Your task to perform on an android device: check data usage Image 0: 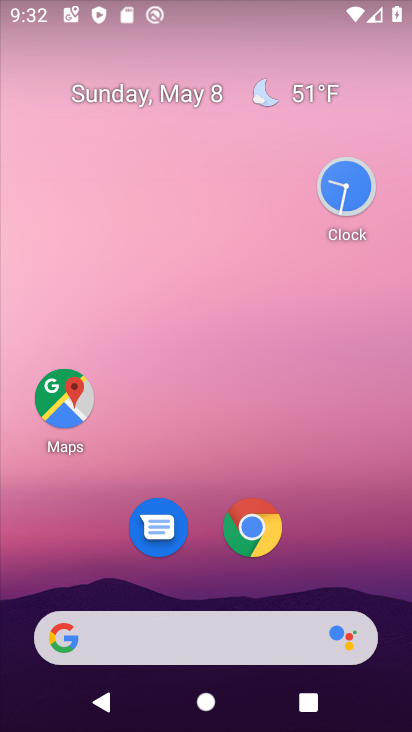
Step 0: drag from (124, 639) to (212, 300)
Your task to perform on an android device: check data usage Image 1: 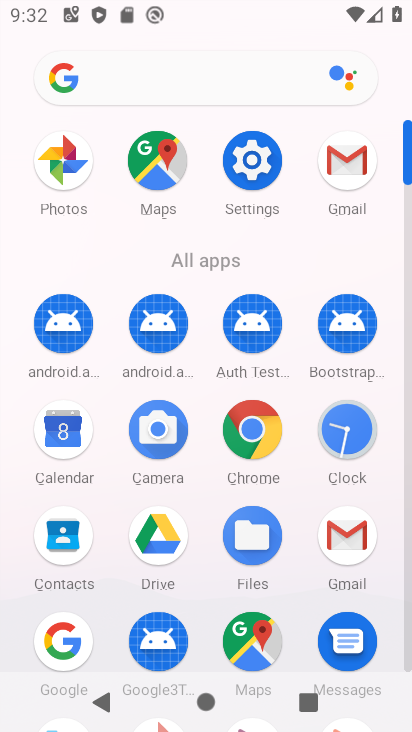
Step 1: drag from (71, 640) to (143, 377)
Your task to perform on an android device: check data usage Image 2: 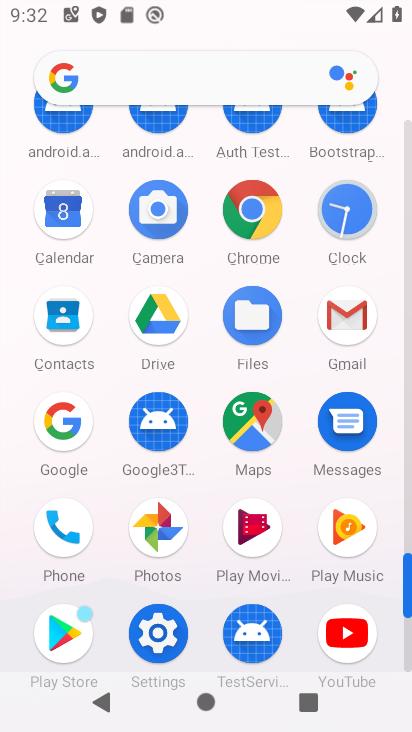
Step 2: drag from (245, 285) to (181, 664)
Your task to perform on an android device: check data usage Image 3: 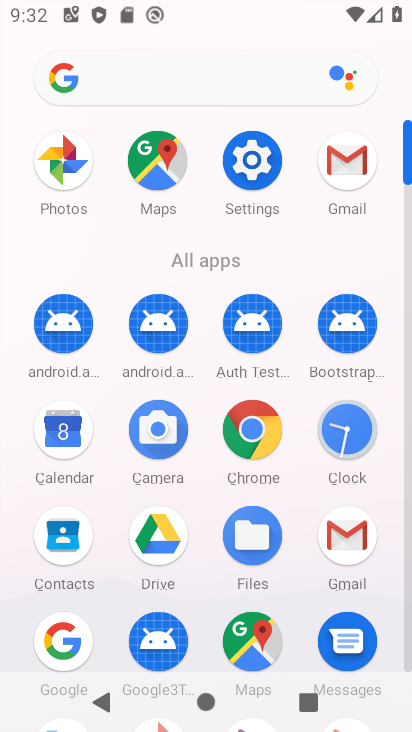
Step 3: click (246, 186)
Your task to perform on an android device: check data usage Image 4: 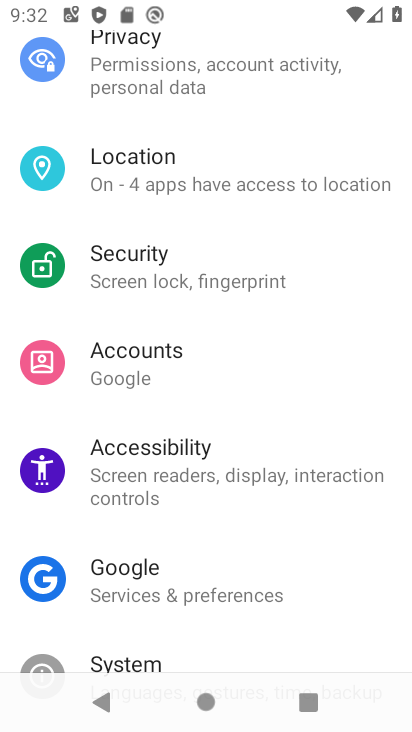
Step 4: drag from (86, 618) to (213, 192)
Your task to perform on an android device: check data usage Image 5: 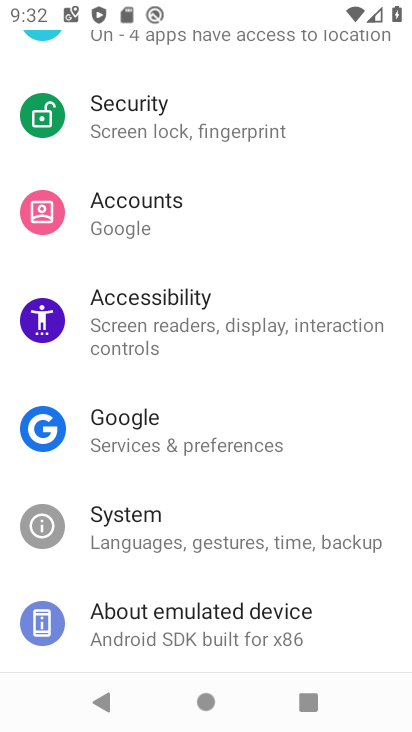
Step 5: drag from (152, 222) to (99, 674)
Your task to perform on an android device: check data usage Image 6: 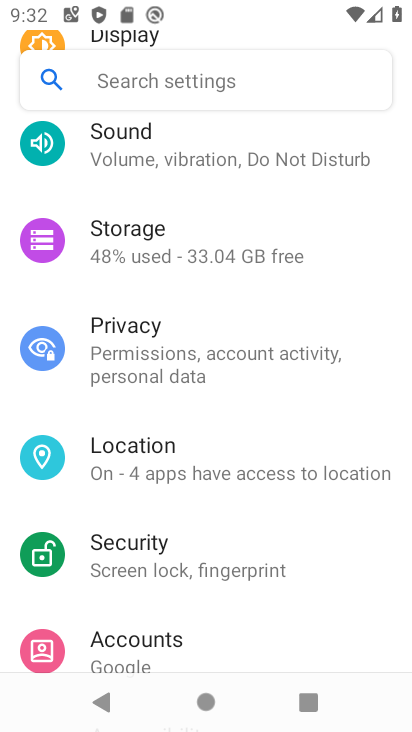
Step 6: drag from (94, 595) to (212, 214)
Your task to perform on an android device: check data usage Image 7: 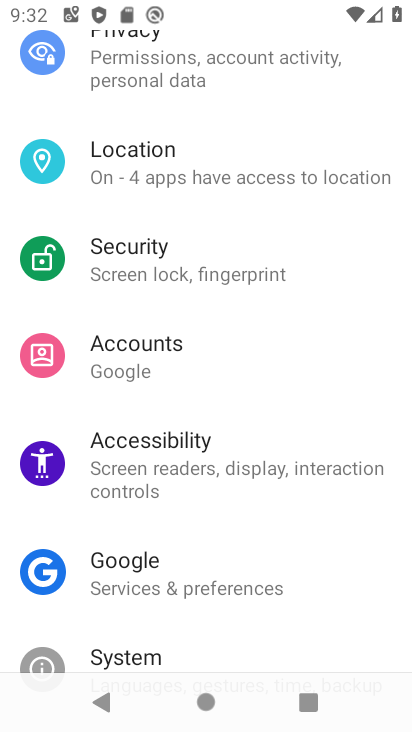
Step 7: drag from (196, 276) to (168, 729)
Your task to perform on an android device: check data usage Image 8: 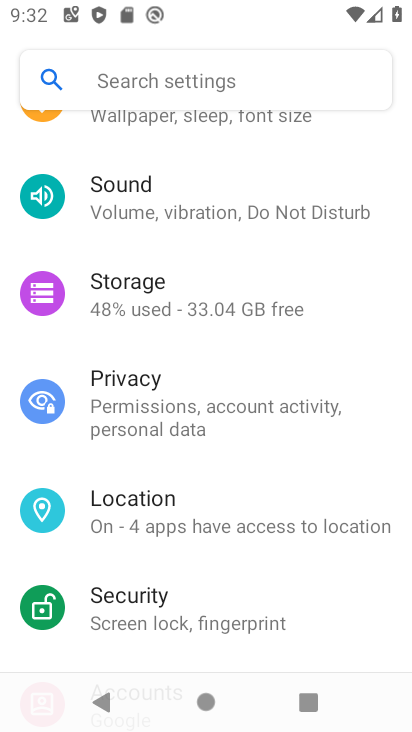
Step 8: drag from (230, 262) to (195, 662)
Your task to perform on an android device: check data usage Image 9: 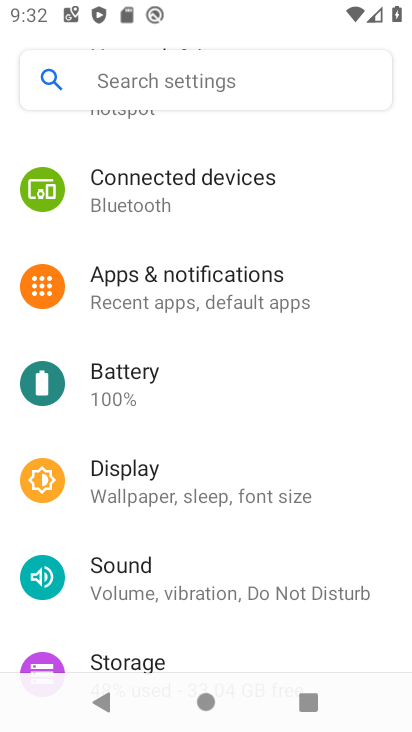
Step 9: drag from (147, 260) to (96, 597)
Your task to perform on an android device: check data usage Image 10: 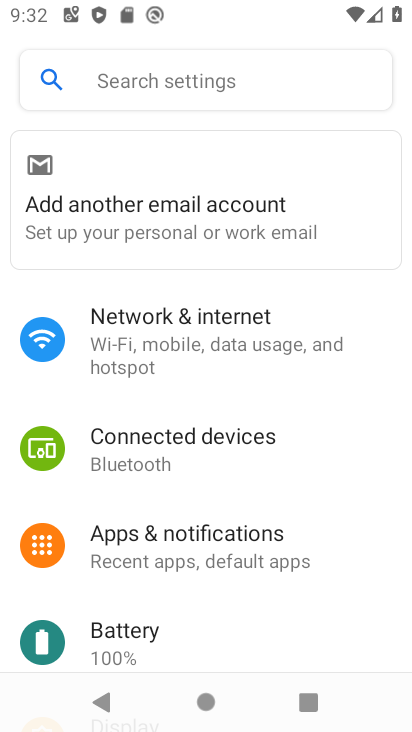
Step 10: click (133, 335)
Your task to perform on an android device: check data usage Image 11: 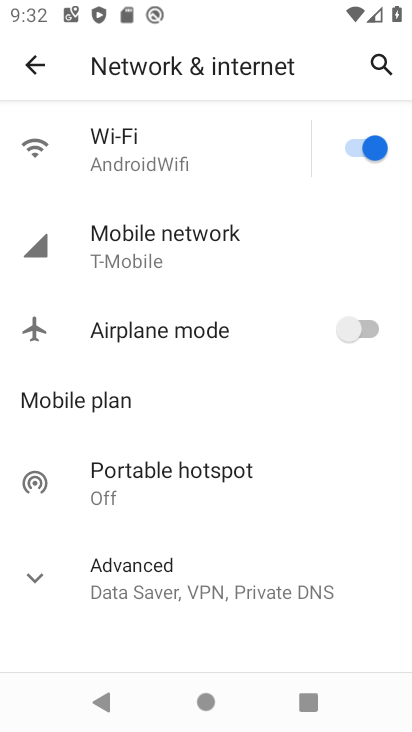
Step 11: click (137, 274)
Your task to perform on an android device: check data usage Image 12: 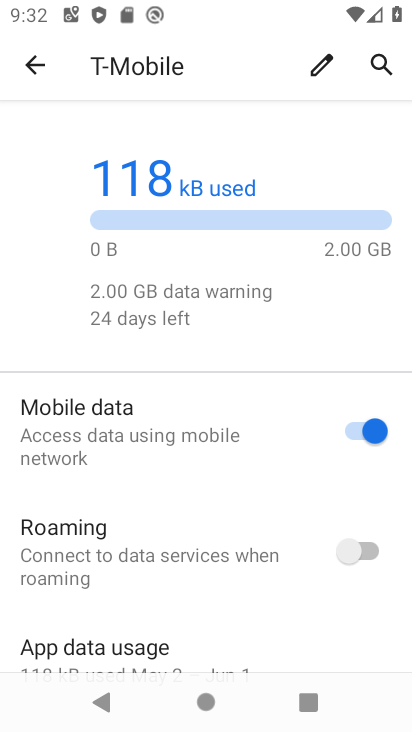
Step 12: click (57, 637)
Your task to perform on an android device: check data usage Image 13: 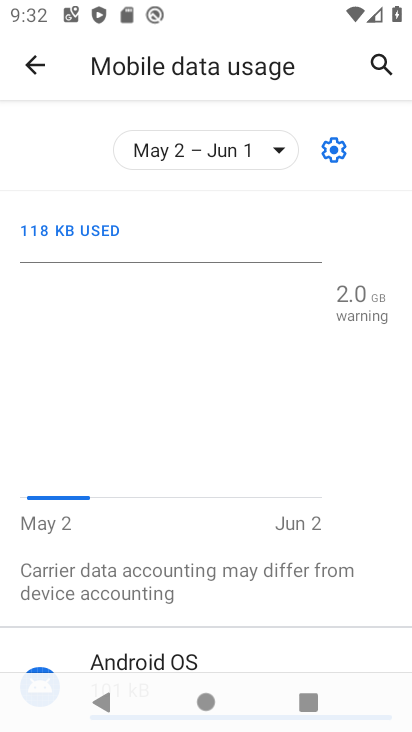
Step 13: task complete